Your task to perform on an android device: turn pop-ups on in chrome Image 0: 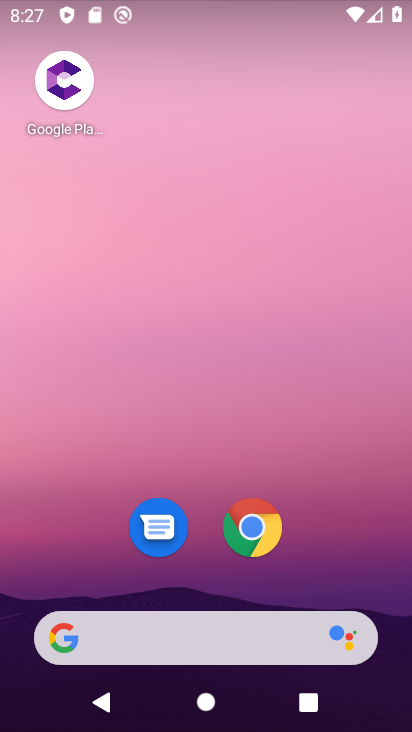
Step 0: drag from (278, 510) to (298, 105)
Your task to perform on an android device: turn pop-ups on in chrome Image 1: 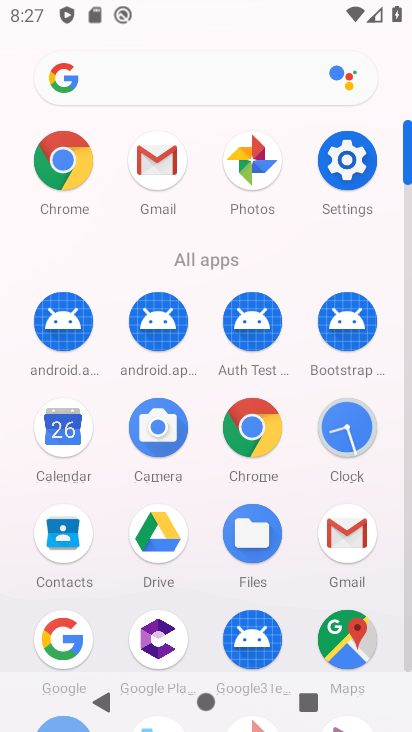
Step 1: click (253, 432)
Your task to perform on an android device: turn pop-ups on in chrome Image 2: 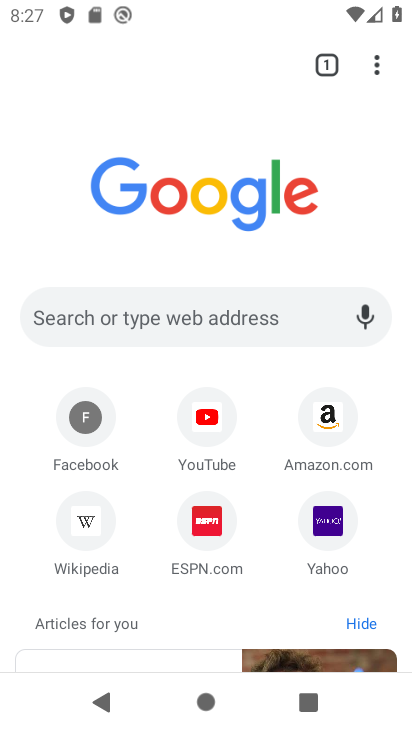
Step 2: drag from (373, 52) to (195, 547)
Your task to perform on an android device: turn pop-ups on in chrome Image 3: 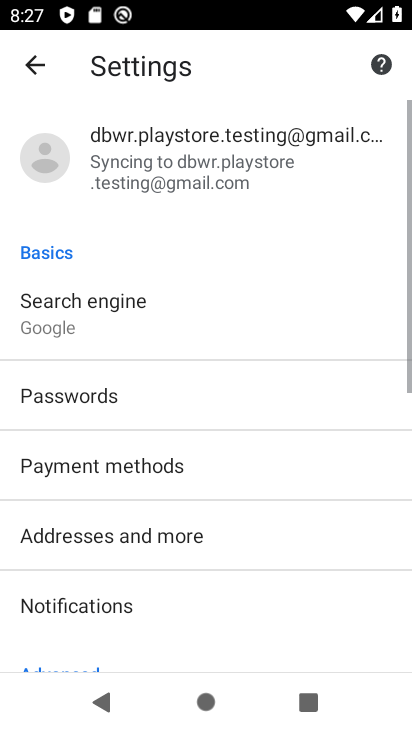
Step 3: drag from (196, 537) to (291, 134)
Your task to perform on an android device: turn pop-ups on in chrome Image 4: 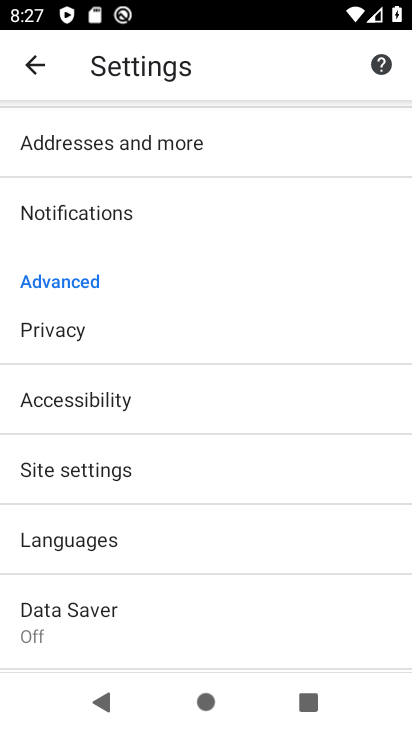
Step 4: click (176, 472)
Your task to perform on an android device: turn pop-ups on in chrome Image 5: 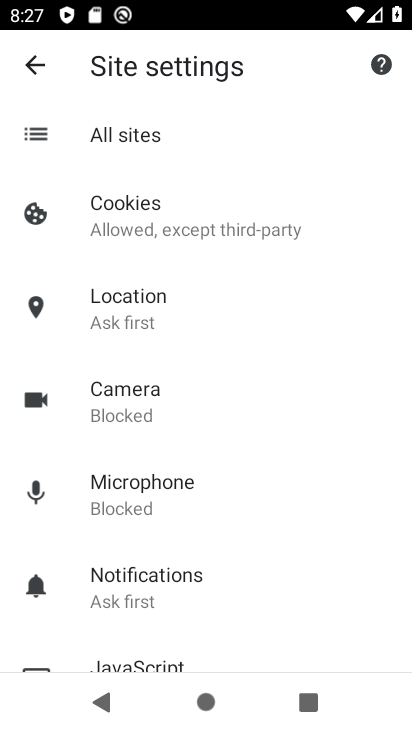
Step 5: drag from (237, 574) to (255, 189)
Your task to perform on an android device: turn pop-ups on in chrome Image 6: 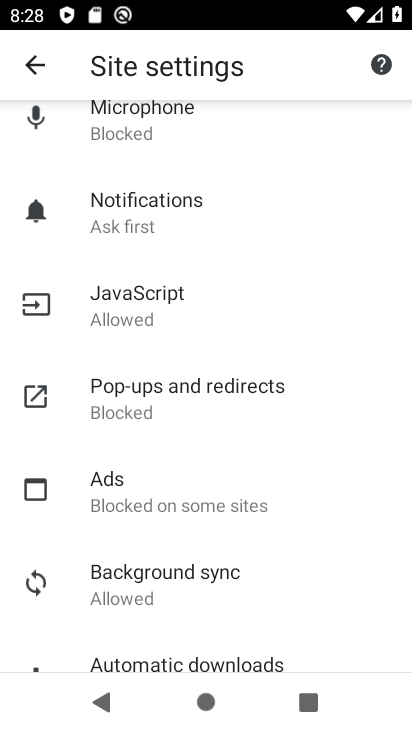
Step 6: click (160, 411)
Your task to perform on an android device: turn pop-ups on in chrome Image 7: 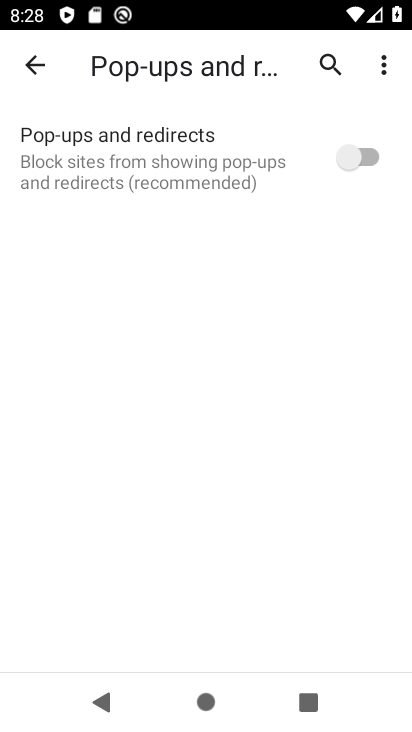
Step 7: click (345, 160)
Your task to perform on an android device: turn pop-ups on in chrome Image 8: 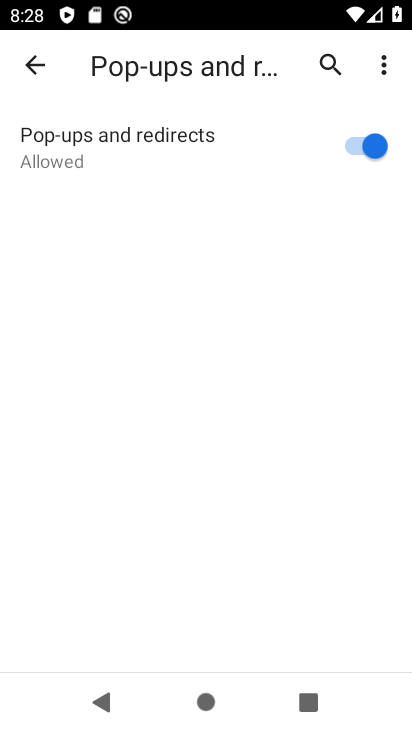
Step 8: task complete